Your task to perform on an android device: turn on translation in the chrome app Image 0: 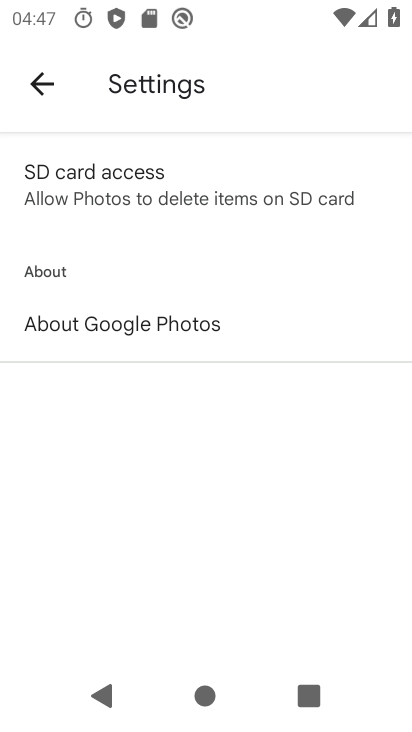
Step 0: press home button
Your task to perform on an android device: turn on translation in the chrome app Image 1: 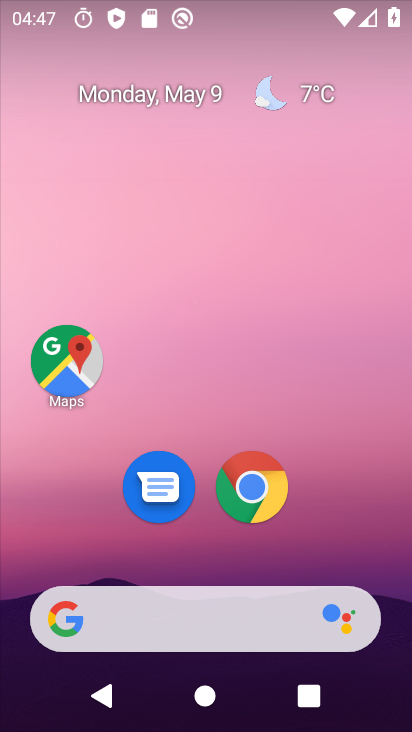
Step 1: drag from (186, 572) to (185, 78)
Your task to perform on an android device: turn on translation in the chrome app Image 2: 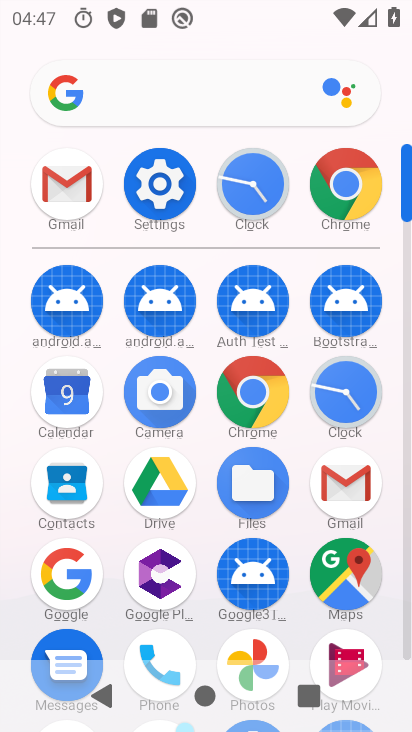
Step 2: click (340, 194)
Your task to perform on an android device: turn on translation in the chrome app Image 3: 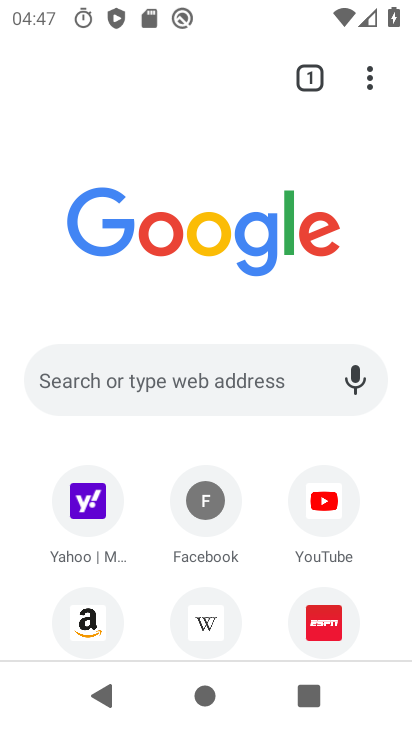
Step 3: click (368, 87)
Your task to perform on an android device: turn on translation in the chrome app Image 4: 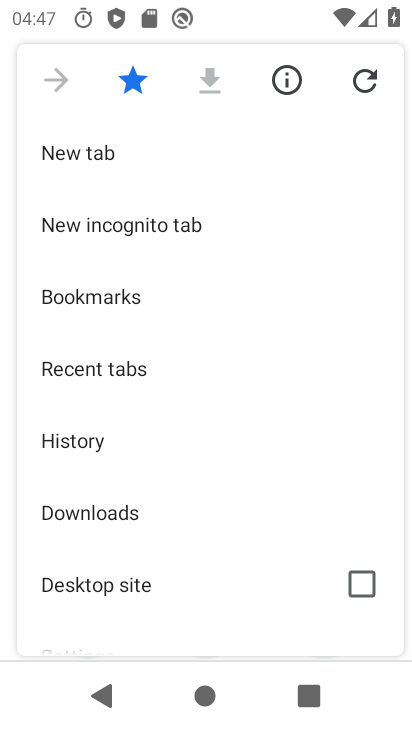
Step 4: drag from (166, 598) to (167, 258)
Your task to perform on an android device: turn on translation in the chrome app Image 5: 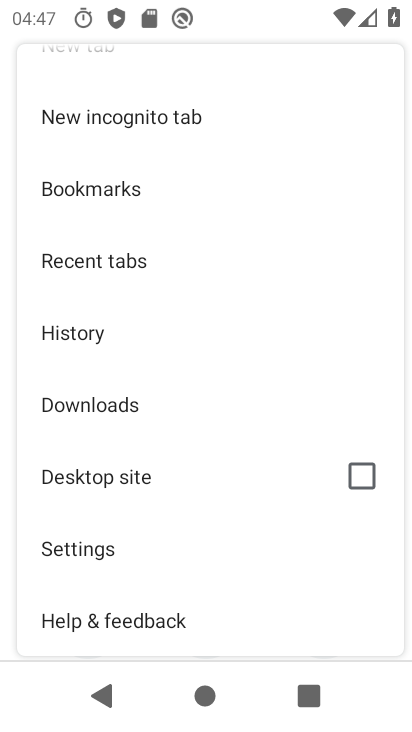
Step 5: click (132, 545)
Your task to perform on an android device: turn on translation in the chrome app Image 6: 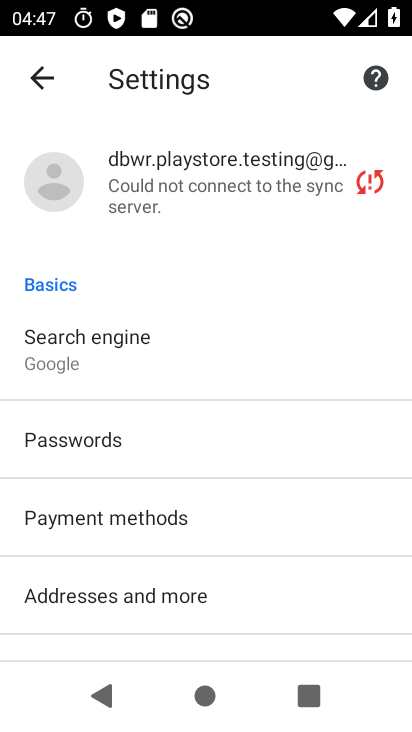
Step 6: drag from (197, 595) to (178, 319)
Your task to perform on an android device: turn on translation in the chrome app Image 7: 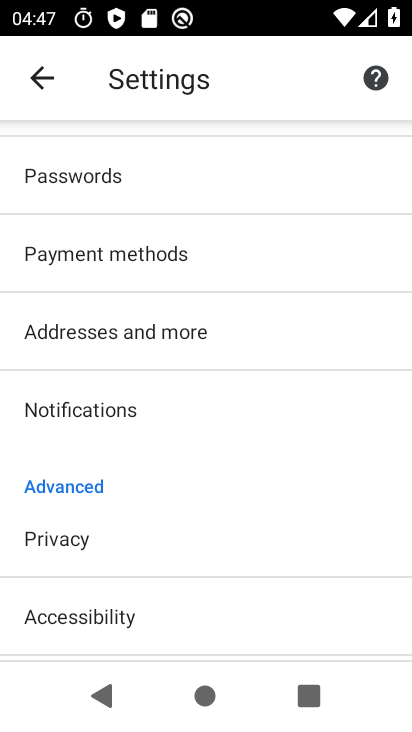
Step 7: drag from (219, 592) to (214, 239)
Your task to perform on an android device: turn on translation in the chrome app Image 8: 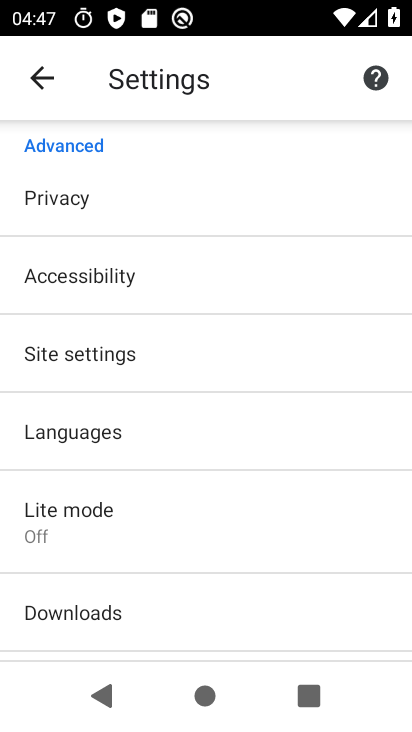
Step 8: click (113, 433)
Your task to perform on an android device: turn on translation in the chrome app Image 9: 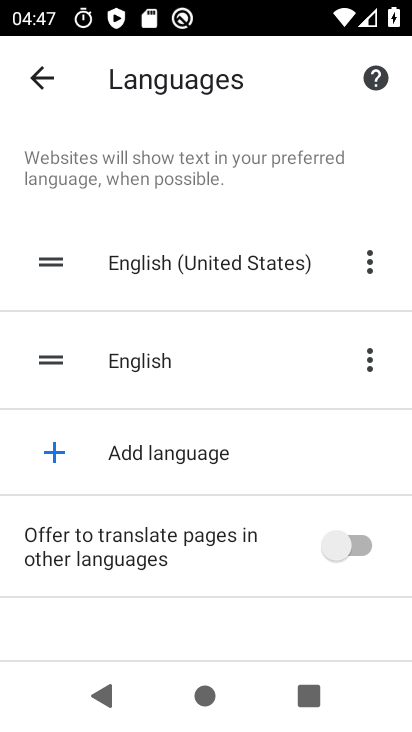
Step 9: click (334, 544)
Your task to perform on an android device: turn on translation in the chrome app Image 10: 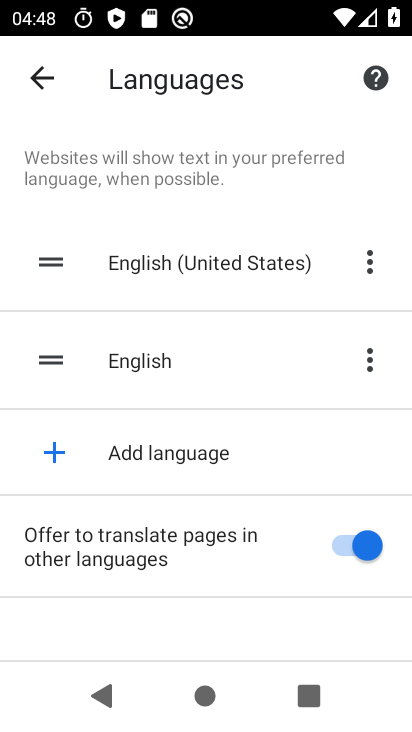
Step 10: task complete